Your task to perform on an android device: Google the capital of the United States Image 0: 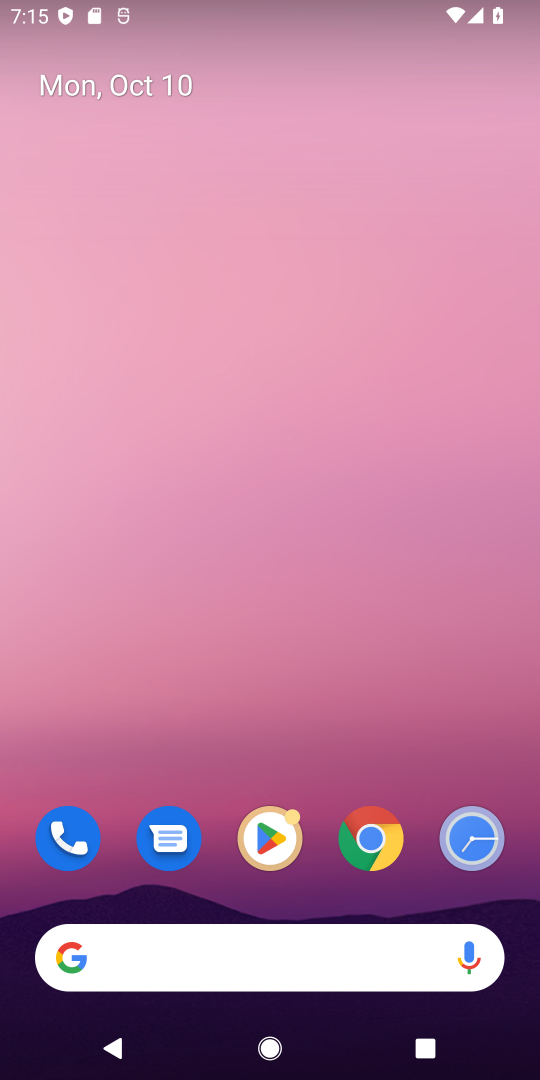
Step 0: click (371, 838)
Your task to perform on an android device: Google the capital of the United States Image 1: 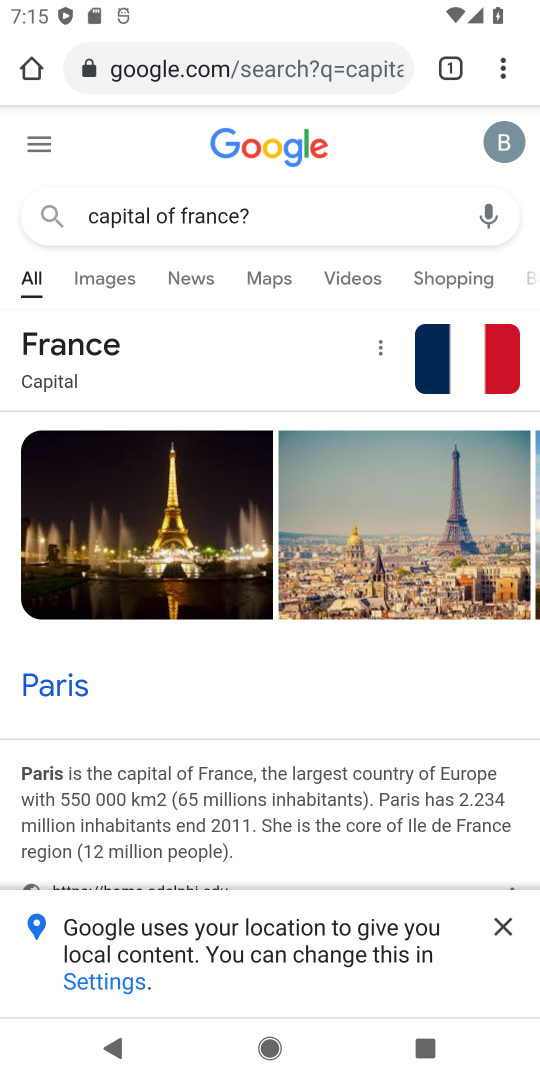
Step 1: click (257, 217)
Your task to perform on an android device: Google the capital of the United States Image 2: 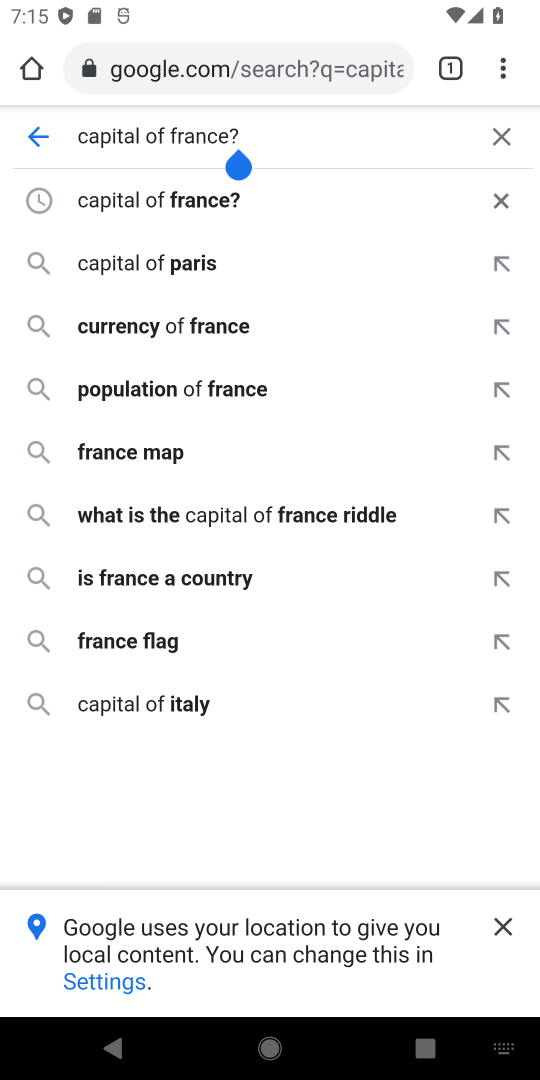
Step 2: click (499, 128)
Your task to perform on an android device: Google the capital of the United States Image 3: 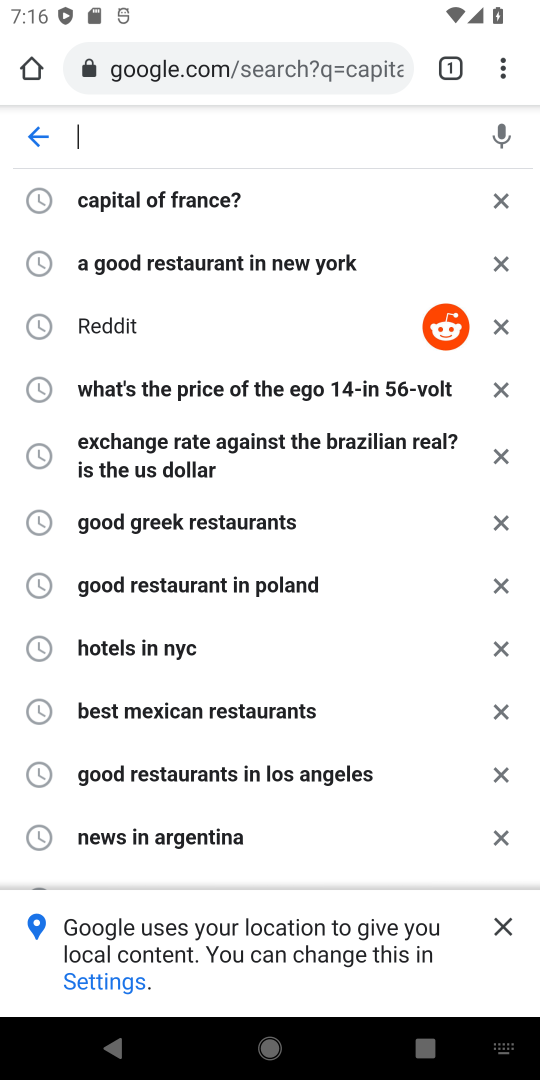
Step 3: type "capital of USA"
Your task to perform on an android device: Google the capital of the United States Image 4: 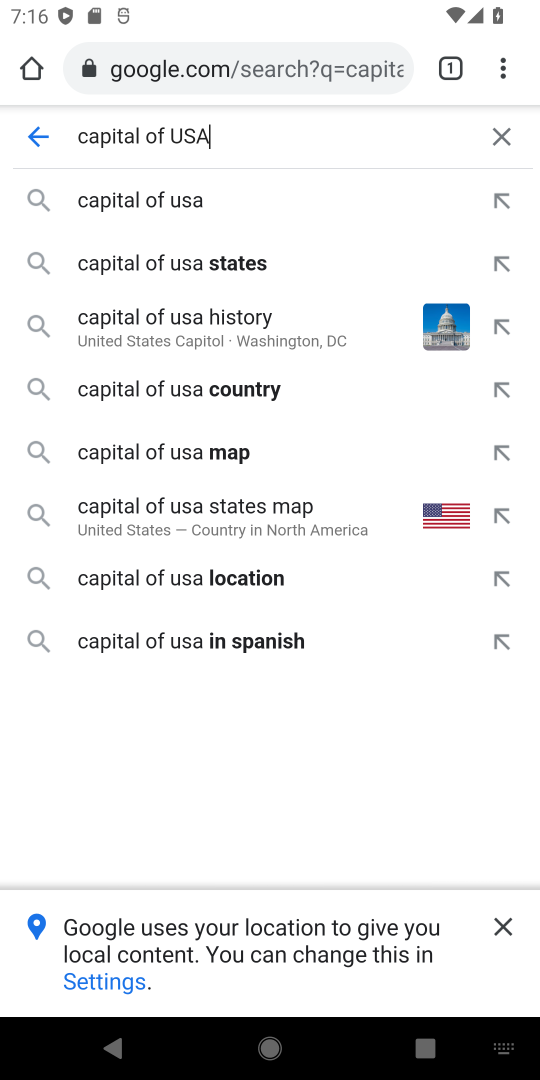
Step 4: click (157, 200)
Your task to perform on an android device: Google the capital of the United States Image 5: 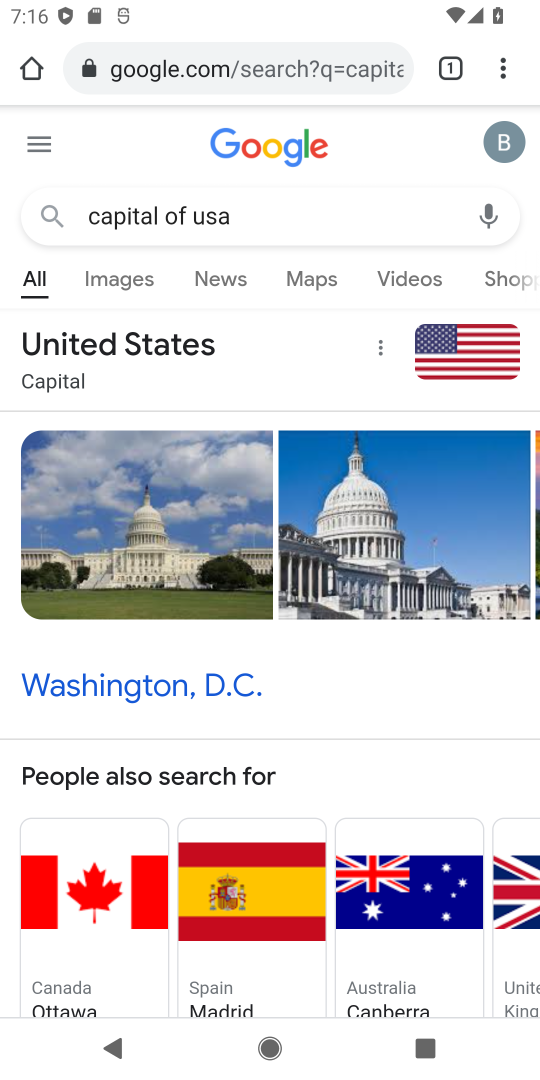
Step 5: task complete